Your task to perform on an android device: What's on my calendar for the rest of the week? Image 0: 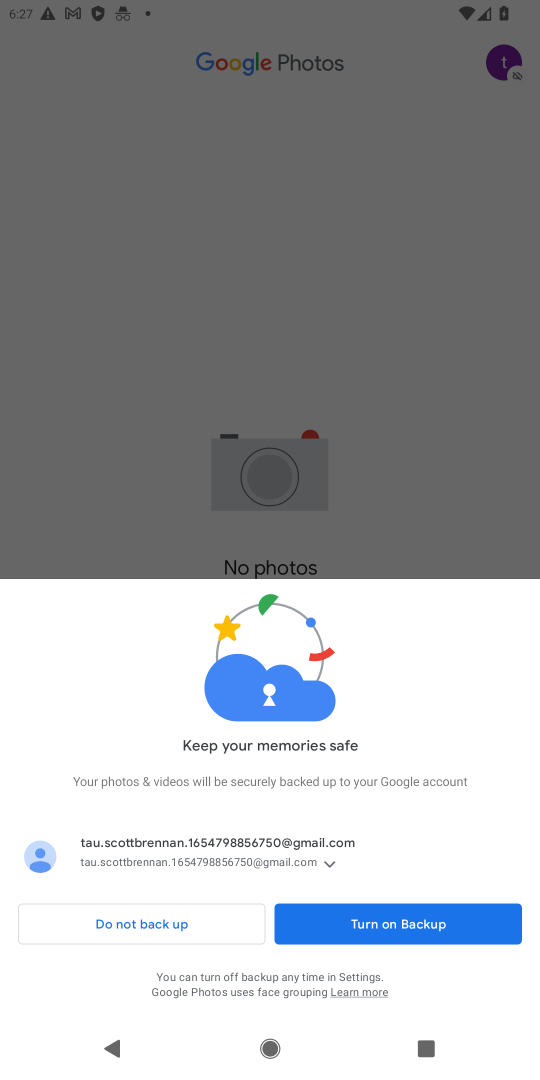
Step 0: press home button
Your task to perform on an android device: What's on my calendar for the rest of the week? Image 1: 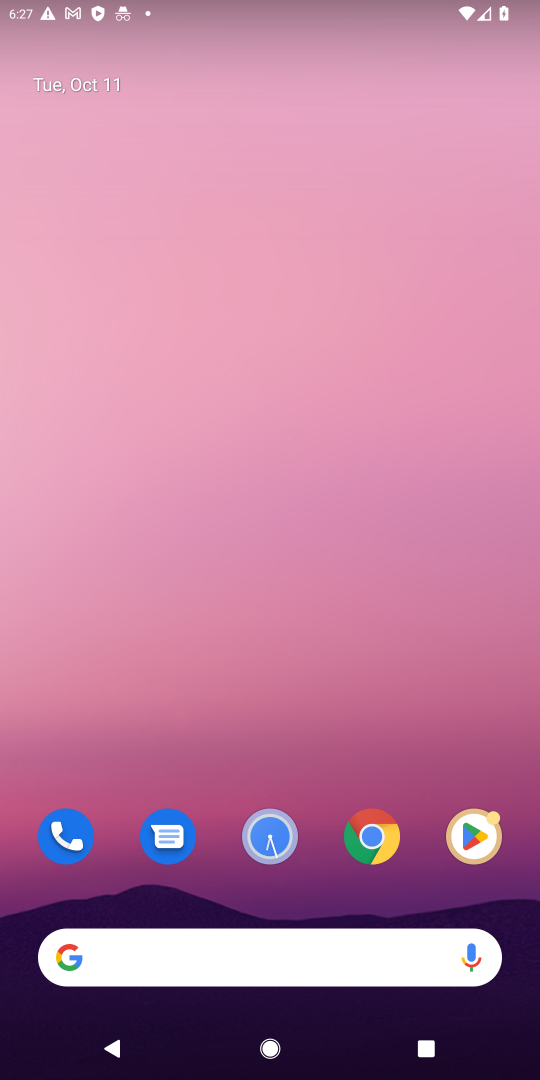
Step 1: drag from (423, 913) to (397, 258)
Your task to perform on an android device: What's on my calendar for the rest of the week? Image 2: 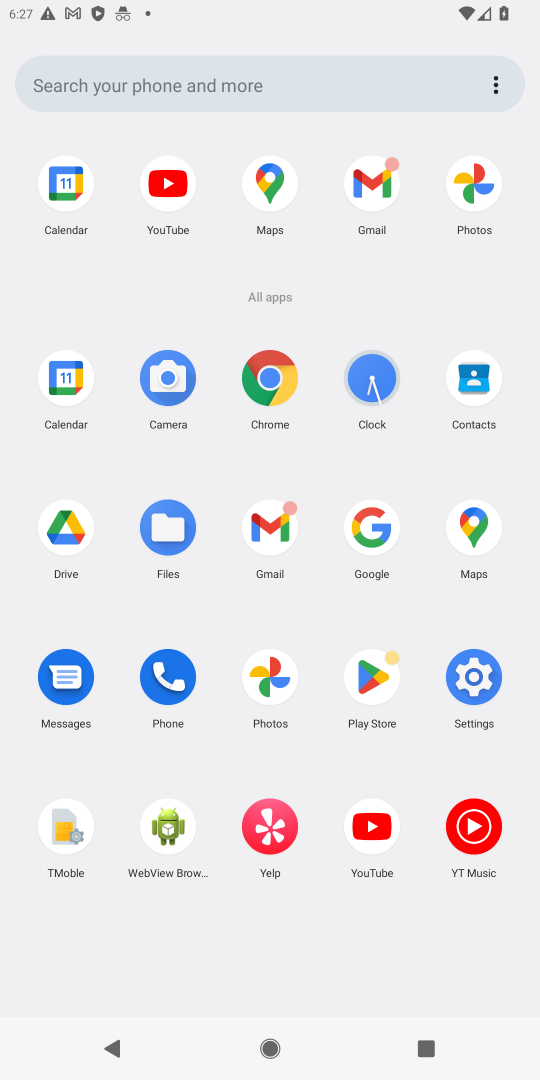
Step 2: click (65, 374)
Your task to perform on an android device: What's on my calendar for the rest of the week? Image 3: 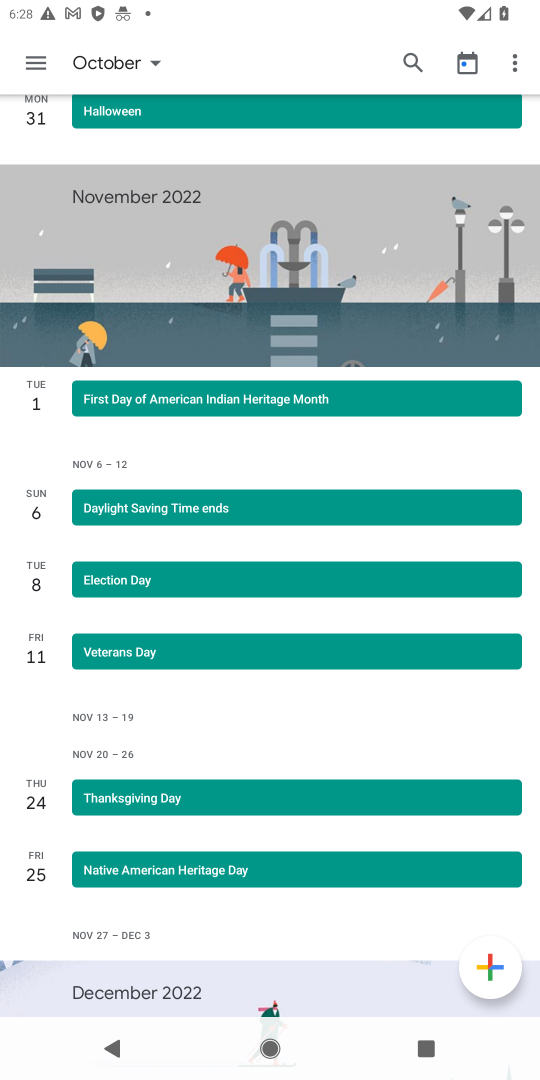
Step 3: click (26, 59)
Your task to perform on an android device: What's on my calendar for the rest of the week? Image 4: 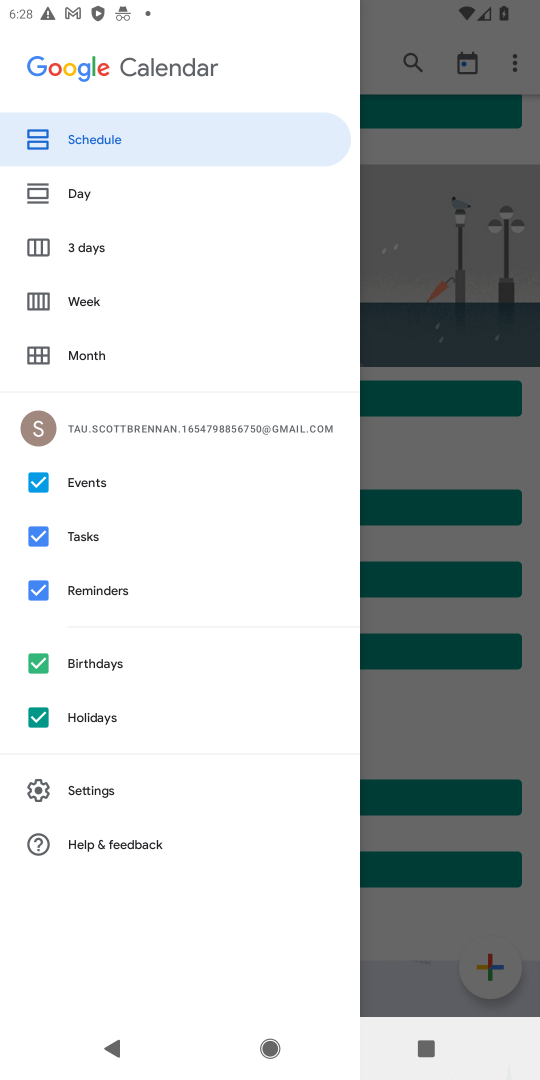
Step 4: click (84, 298)
Your task to perform on an android device: What's on my calendar for the rest of the week? Image 5: 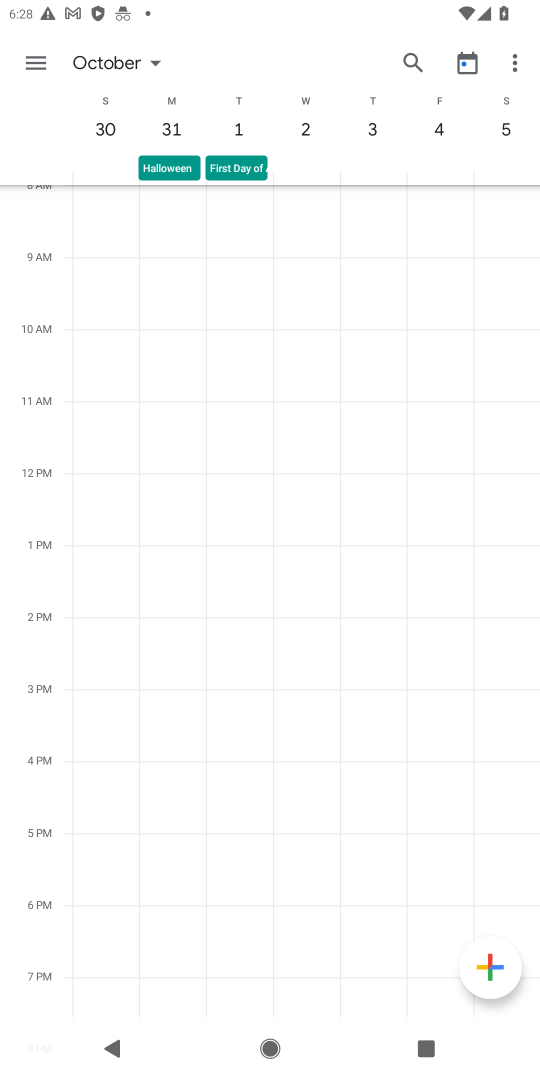
Step 5: click (148, 59)
Your task to perform on an android device: What's on my calendar for the rest of the week? Image 6: 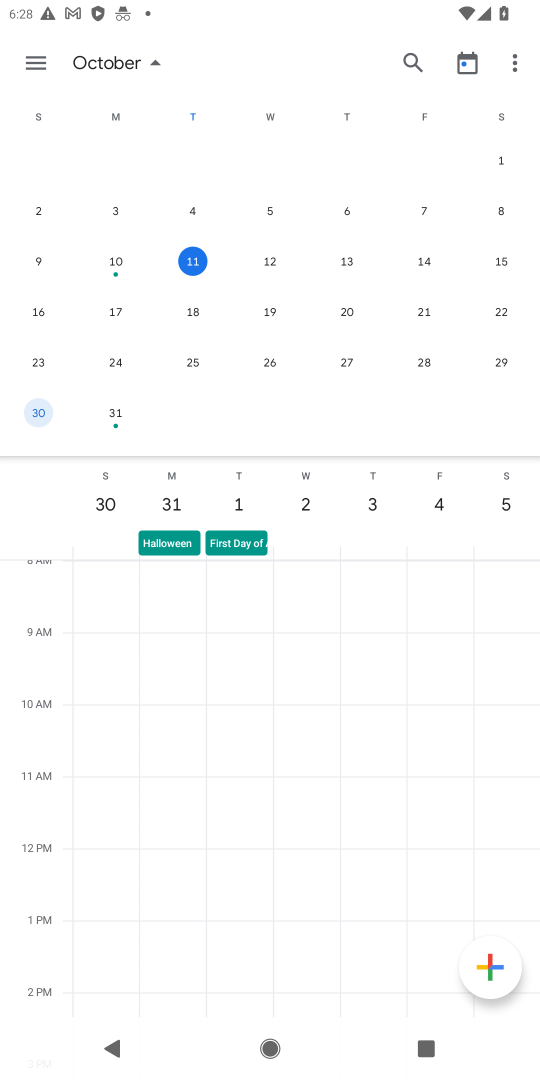
Step 6: click (35, 360)
Your task to perform on an android device: What's on my calendar for the rest of the week? Image 7: 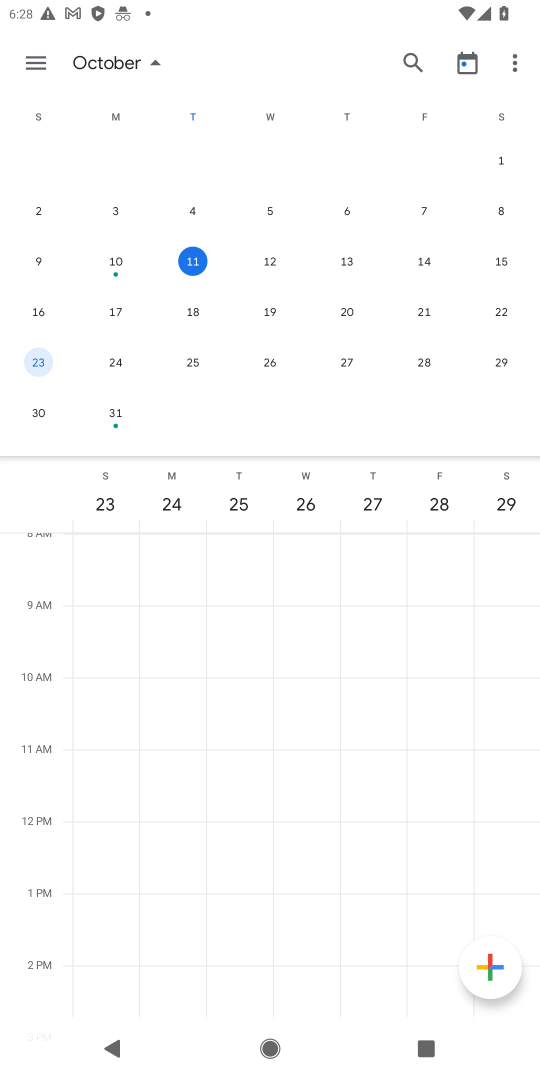
Step 7: drag from (220, 813) to (235, 325)
Your task to perform on an android device: What's on my calendar for the rest of the week? Image 8: 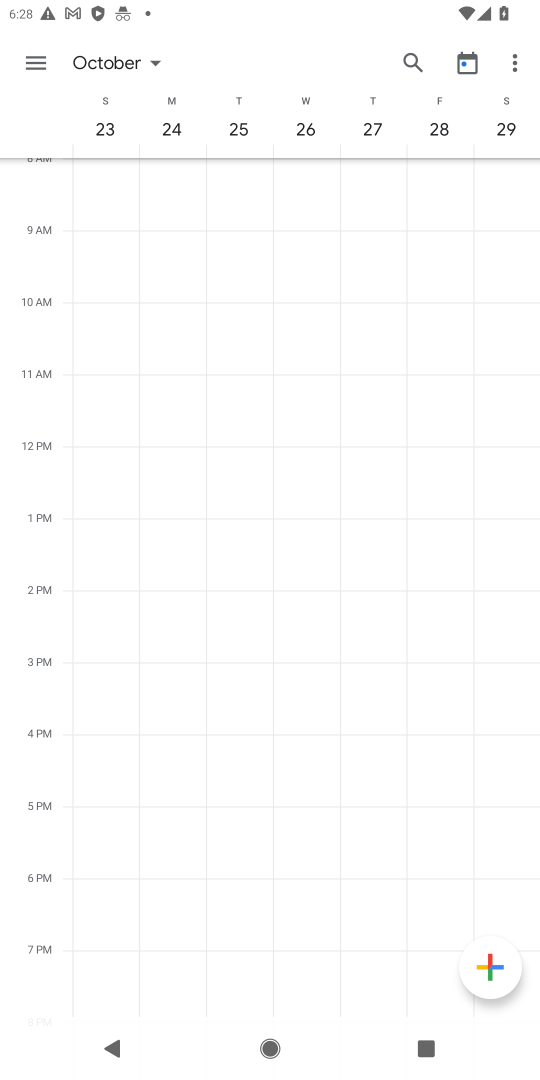
Step 8: drag from (214, 851) to (249, 393)
Your task to perform on an android device: What's on my calendar for the rest of the week? Image 9: 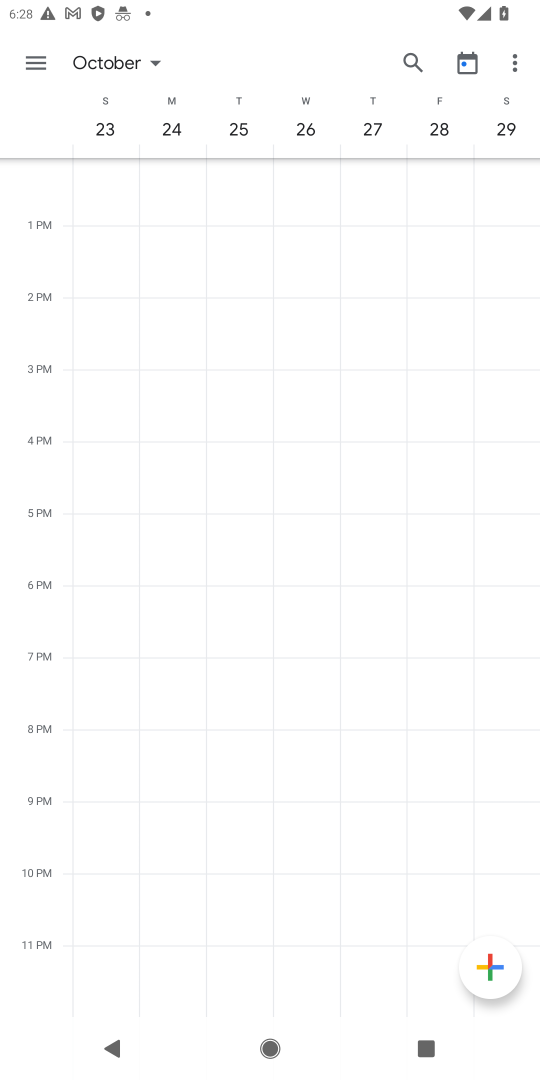
Step 9: click (147, 68)
Your task to perform on an android device: What's on my calendar for the rest of the week? Image 10: 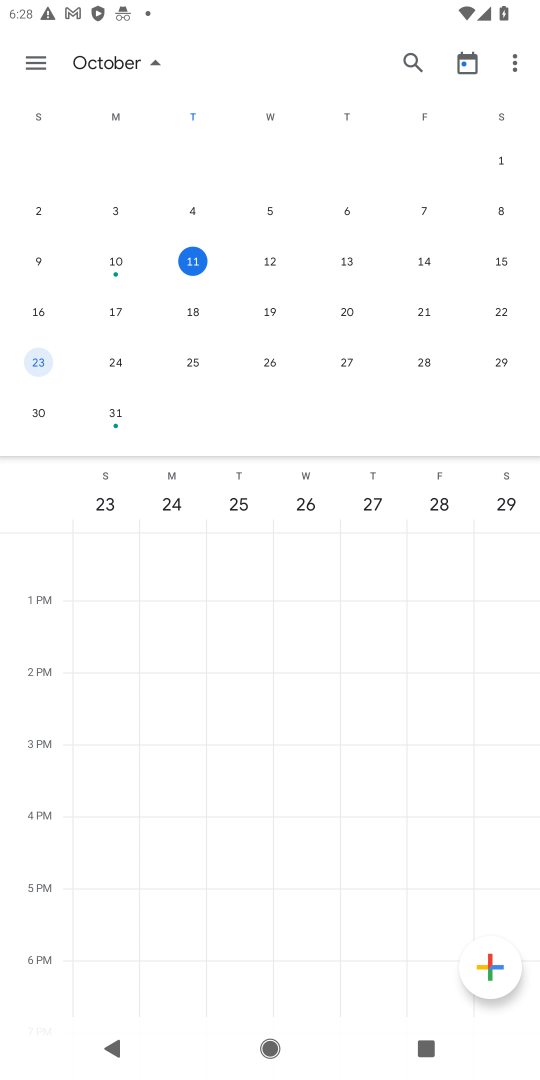
Step 10: click (182, 259)
Your task to perform on an android device: What's on my calendar for the rest of the week? Image 11: 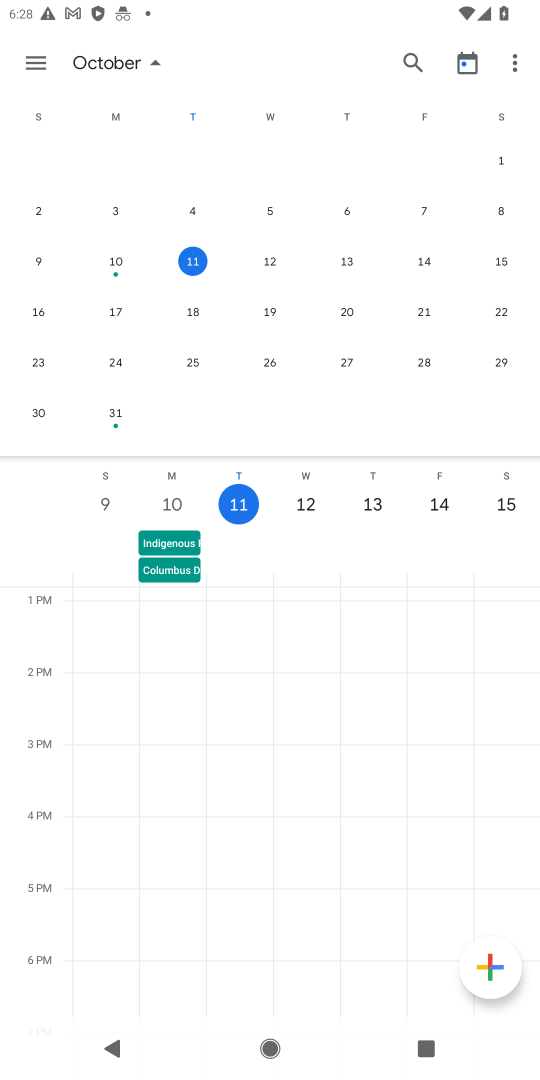
Step 11: drag from (231, 733) to (262, 247)
Your task to perform on an android device: What's on my calendar for the rest of the week? Image 12: 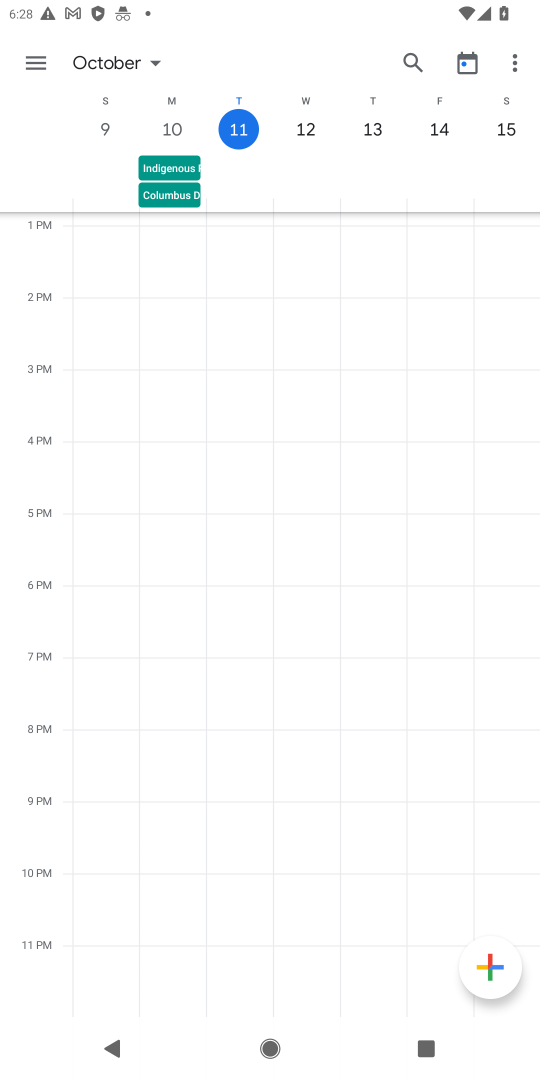
Step 12: click (290, 750)
Your task to perform on an android device: What's on my calendar for the rest of the week? Image 13: 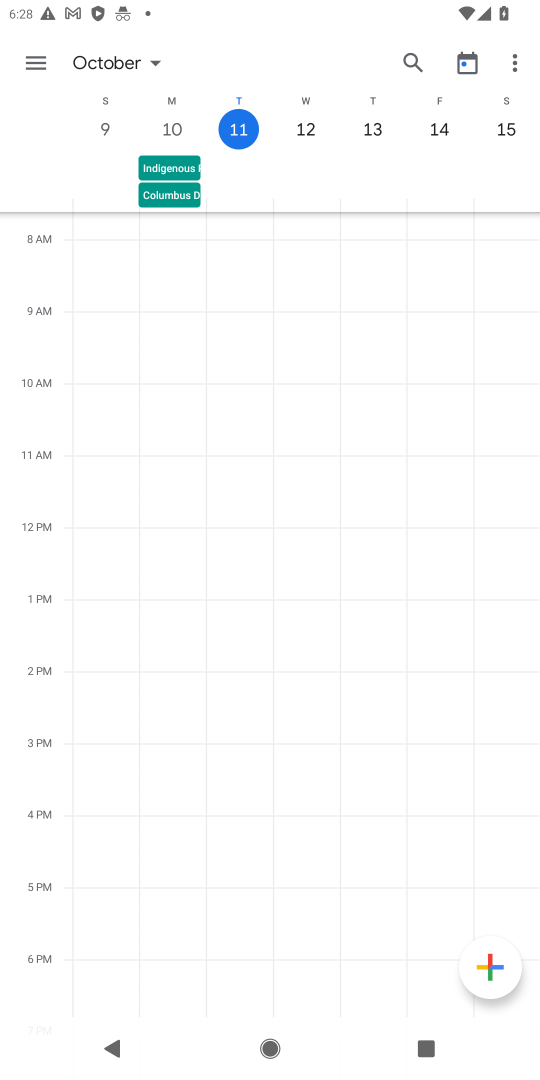
Step 13: task complete